Your task to perform on an android device: change timer sound Image 0: 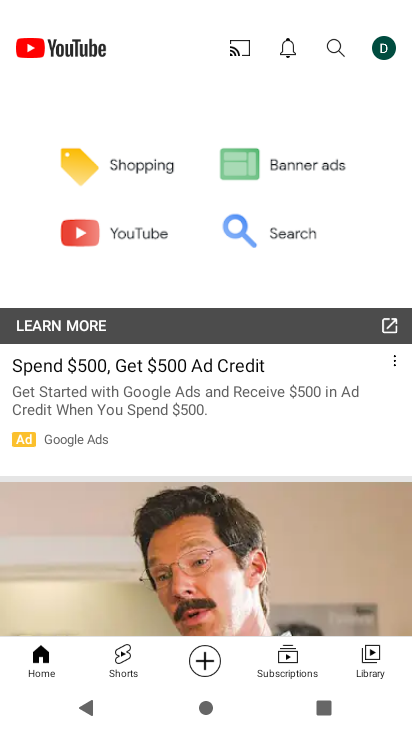
Step 0: press home button
Your task to perform on an android device: change timer sound Image 1: 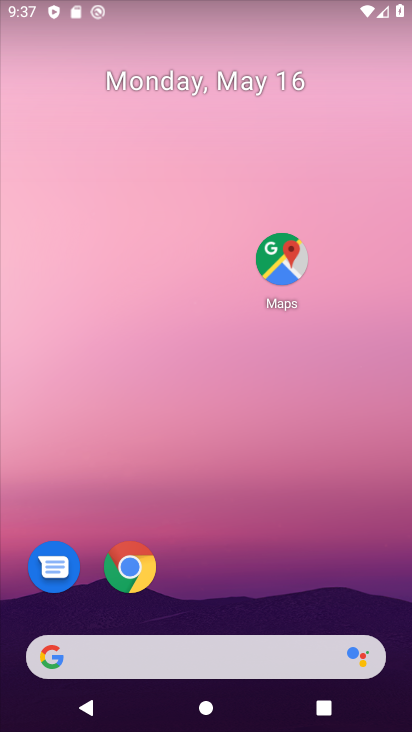
Step 1: drag from (218, 170) to (217, 104)
Your task to perform on an android device: change timer sound Image 2: 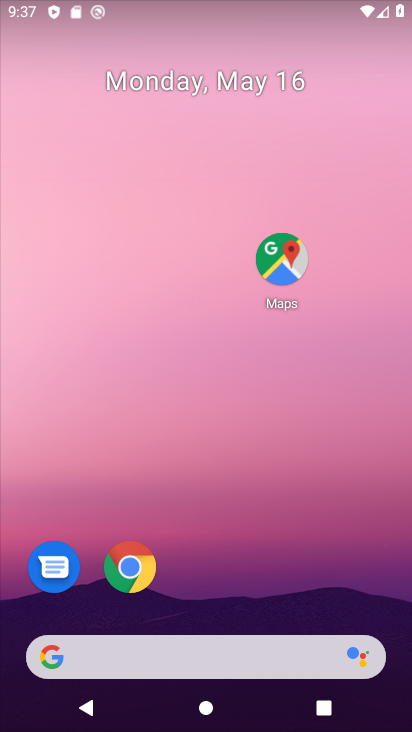
Step 2: drag from (232, 539) to (216, 70)
Your task to perform on an android device: change timer sound Image 3: 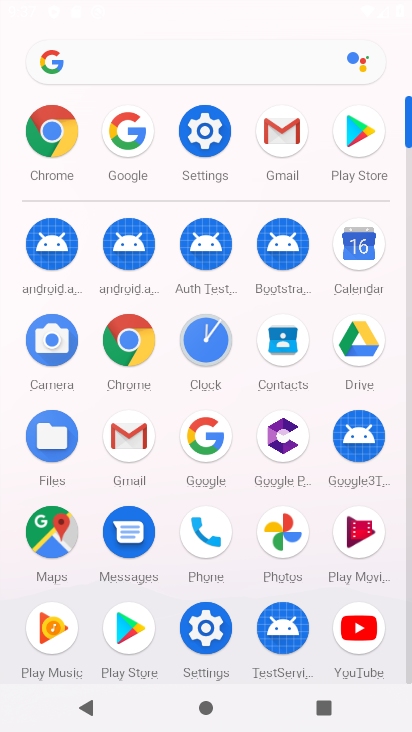
Step 3: click (212, 347)
Your task to perform on an android device: change timer sound Image 4: 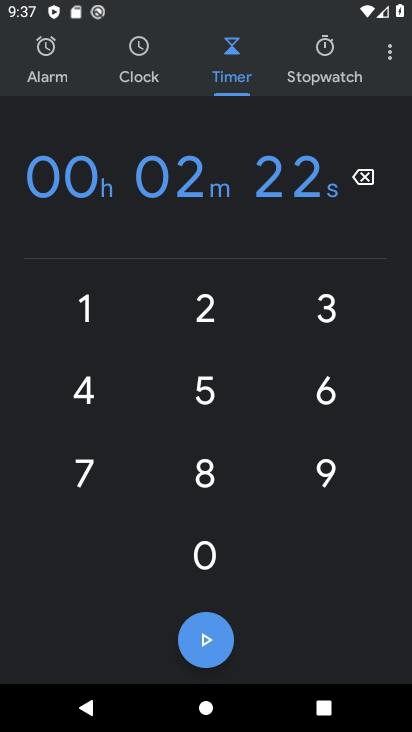
Step 4: click (388, 54)
Your task to perform on an android device: change timer sound Image 5: 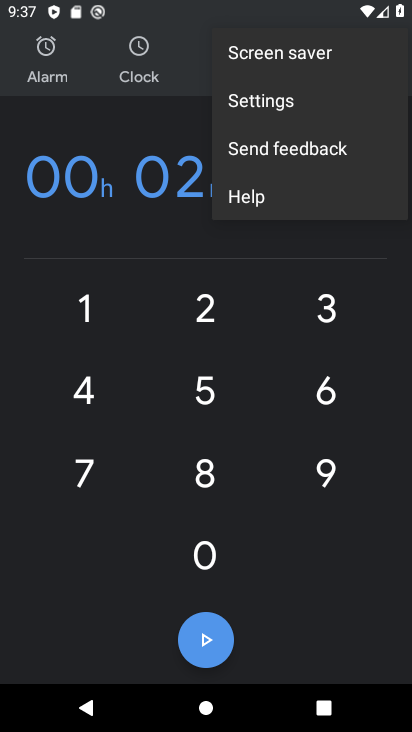
Step 5: click (314, 110)
Your task to perform on an android device: change timer sound Image 6: 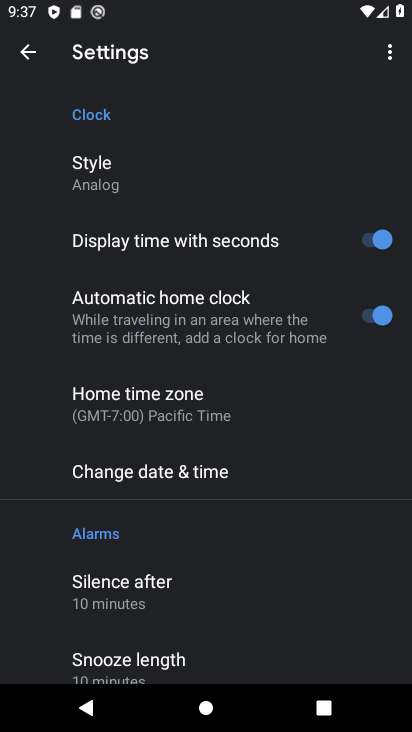
Step 6: drag from (208, 592) to (192, 210)
Your task to perform on an android device: change timer sound Image 7: 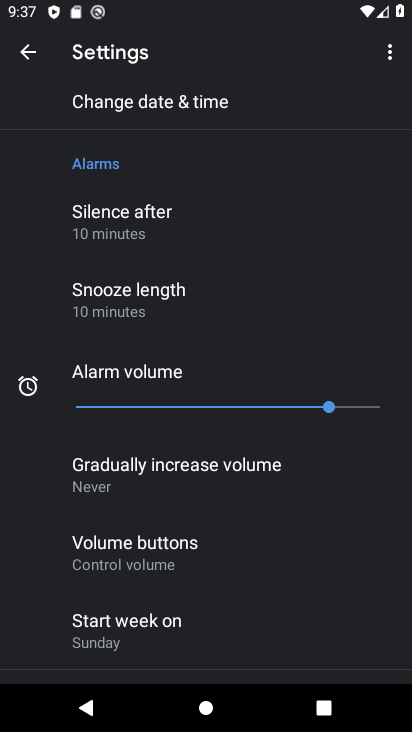
Step 7: drag from (219, 585) to (172, 170)
Your task to perform on an android device: change timer sound Image 8: 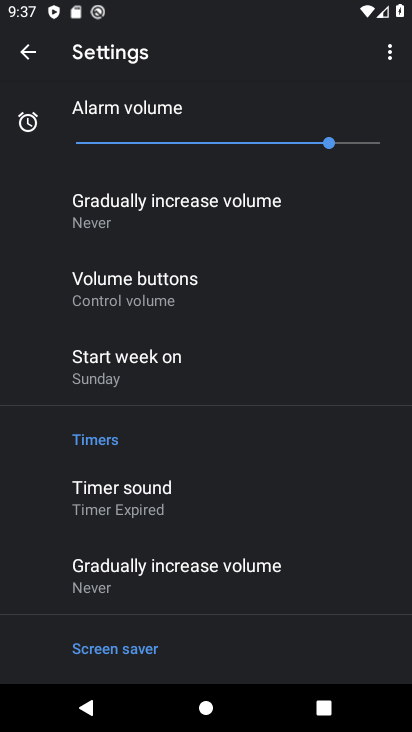
Step 8: click (127, 483)
Your task to perform on an android device: change timer sound Image 9: 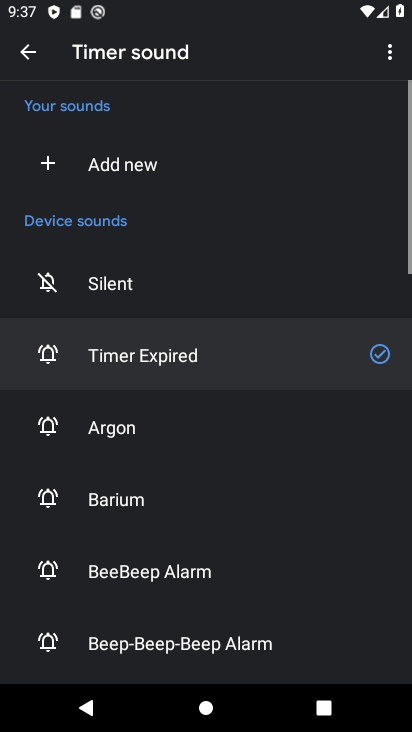
Step 9: click (129, 432)
Your task to perform on an android device: change timer sound Image 10: 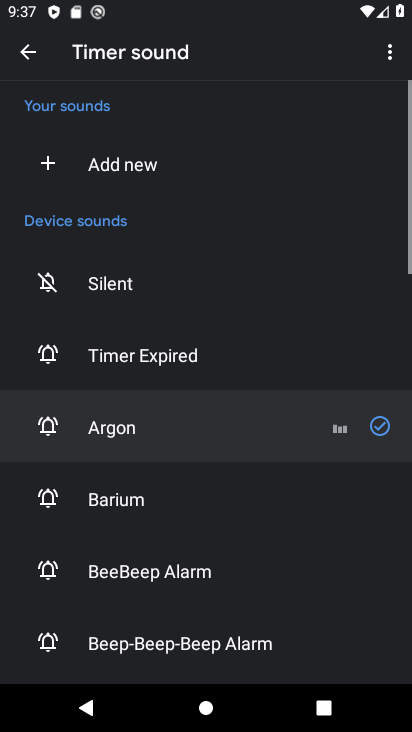
Step 10: task complete